Your task to perform on an android device: turn off location history Image 0: 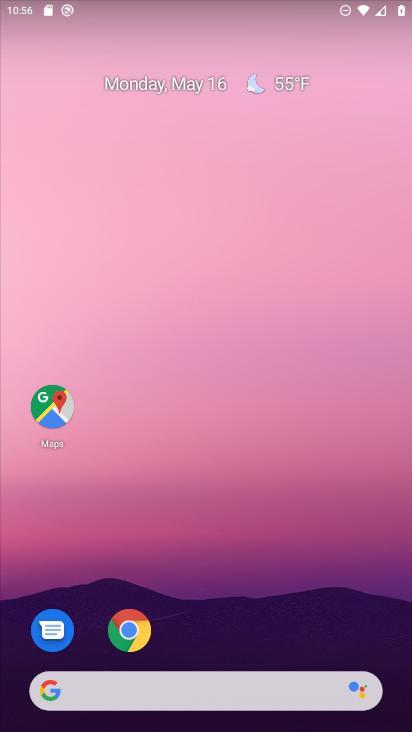
Step 0: drag from (211, 621) to (256, 191)
Your task to perform on an android device: turn off location history Image 1: 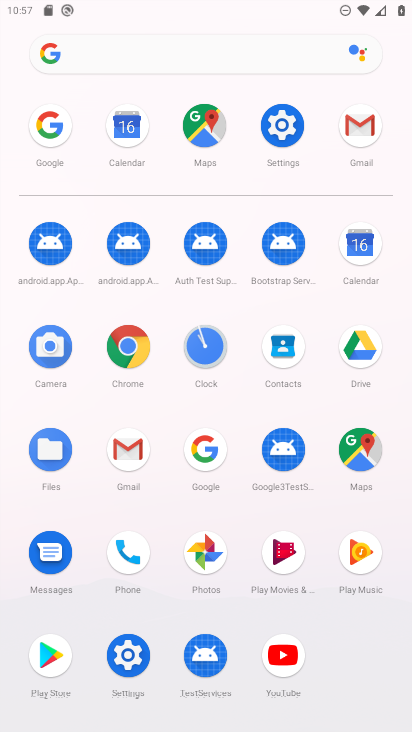
Step 1: click (264, 127)
Your task to perform on an android device: turn off location history Image 2: 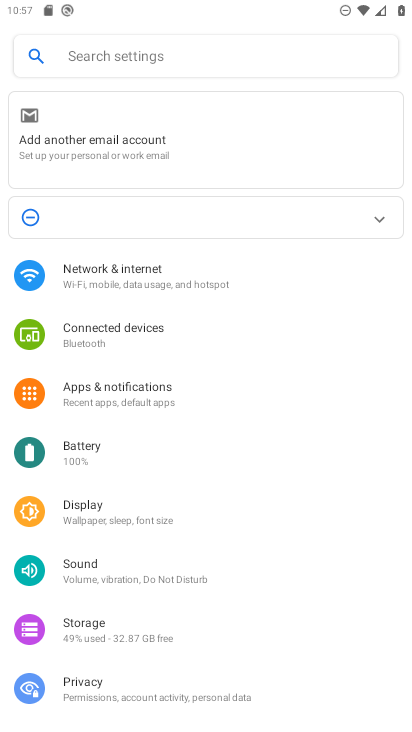
Step 2: drag from (124, 667) to (159, 447)
Your task to perform on an android device: turn off location history Image 3: 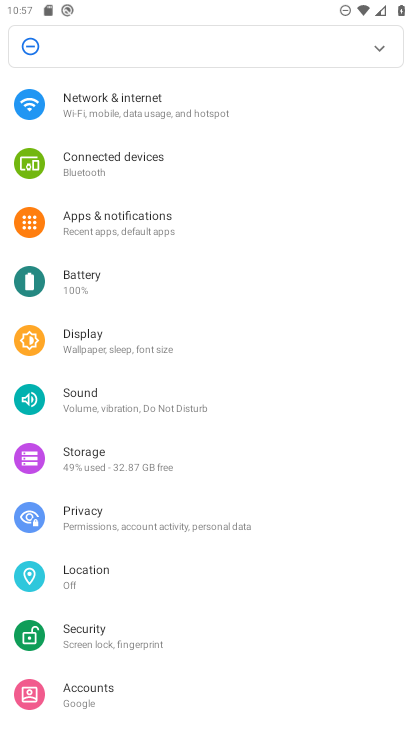
Step 3: click (109, 578)
Your task to perform on an android device: turn off location history Image 4: 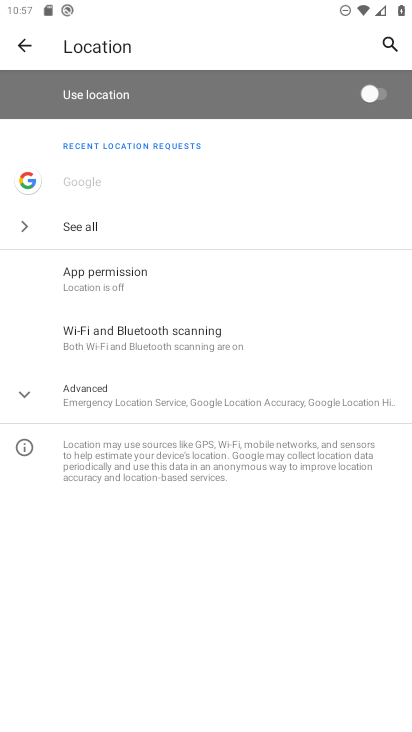
Step 4: click (157, 394)
Your task to perform on an android device: turn off location history Image 5: 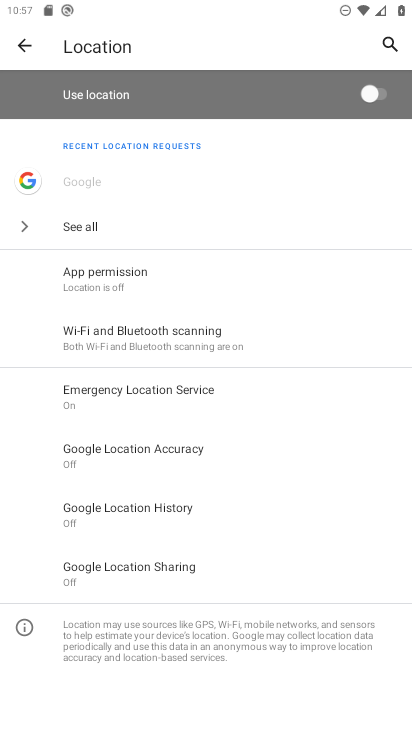
Step 5: click (195, 510)
Your task to perform on an android device: turn off location history Image 6: 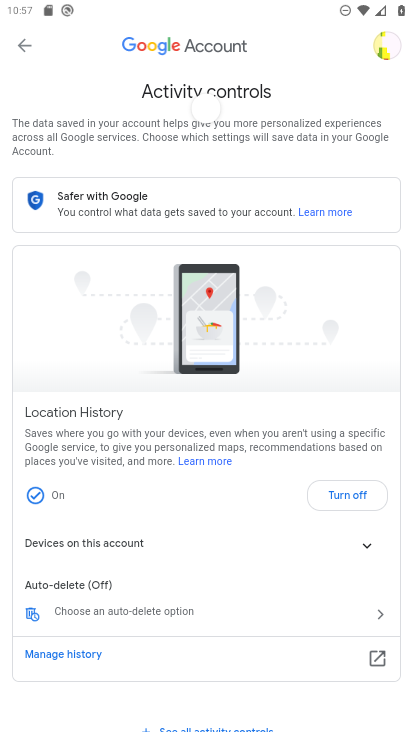
Step 6: drag from (232, 542) to (283, 281)
Your task to perform on an android device: turn off location history Image 7: 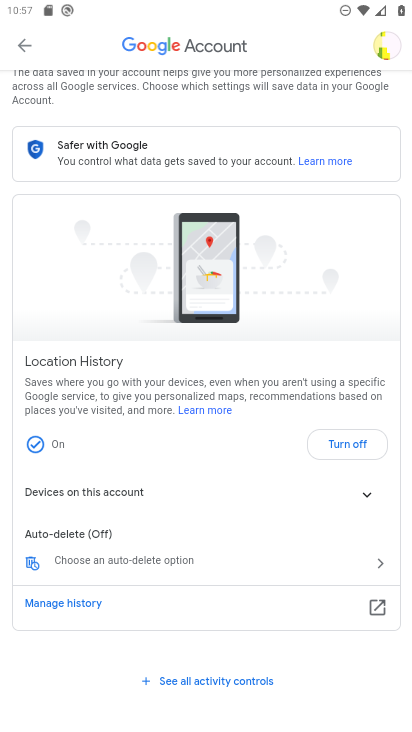
Step 7: click (353, 452)
Your task to perform on an android device: turn off location history Image 8: 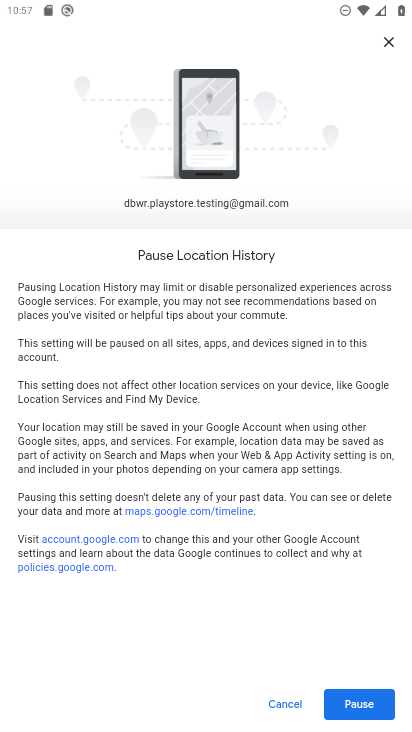
Step 8: click (335, 690)
Your task to perform on an android device: turn off location history Image 9: 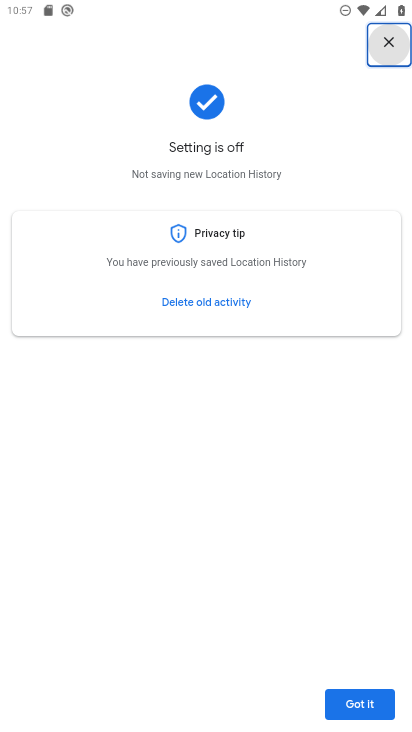
Step 9: task complete